Your task to perform on an android device: set the timer Image 0: 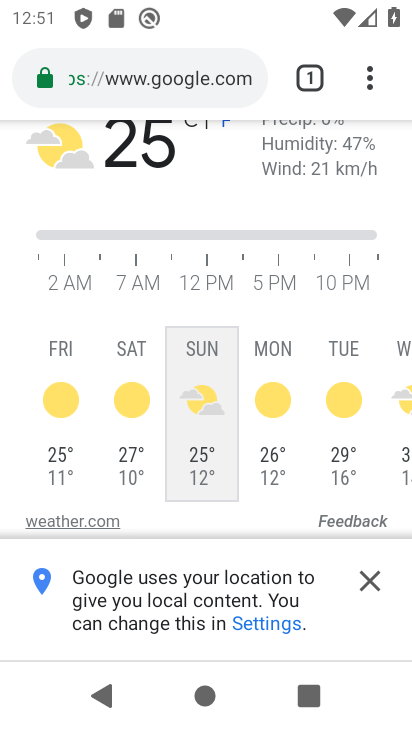
Step 0: press home button
Your task to perform on an android device: set the timer Image 1: 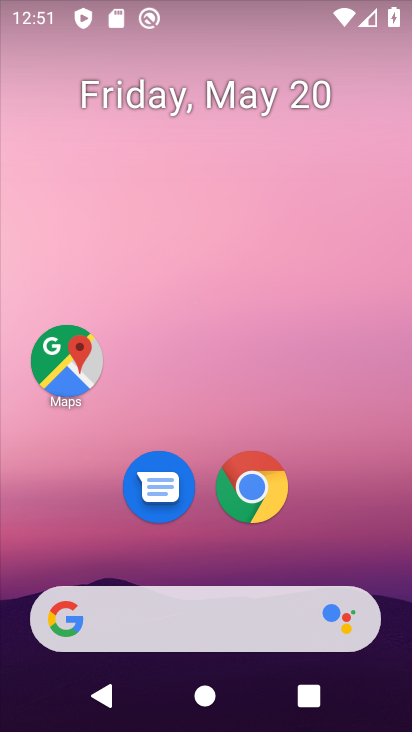
Step 1: drag from (338, 540) to (339, 150)
Your task to perform on an android device: set the timer Image 2: 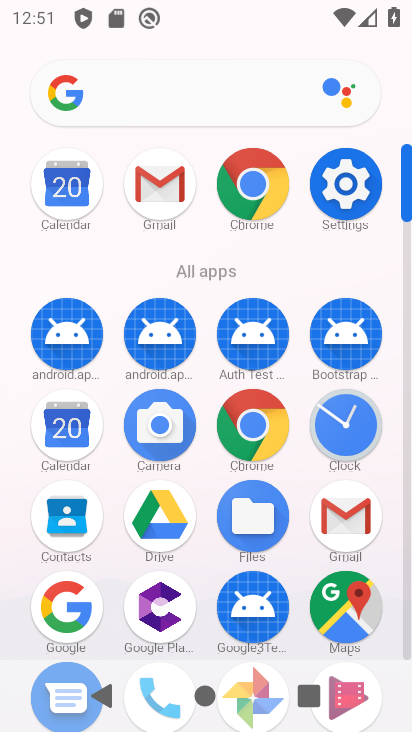
Step 2: click (348, 422)
Your task to perform on an android device: set the timer Image 3: 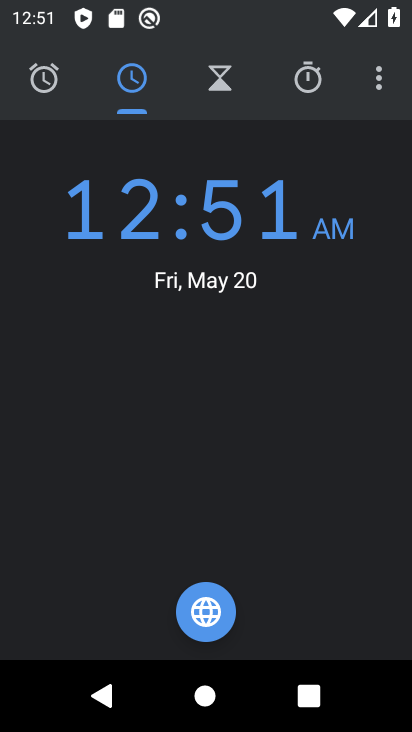
Step 3: click (222, 97)
Your task to perform on an android device: set the timer Image 4: 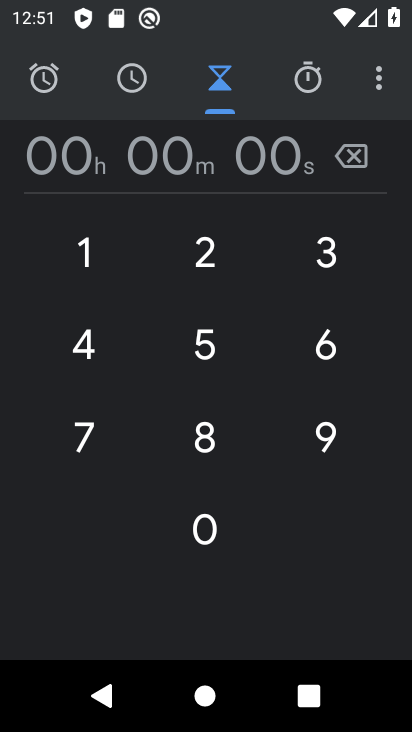
Step 4: click (207, 351)
Your task to perform on an android device: set the timer Image 5: 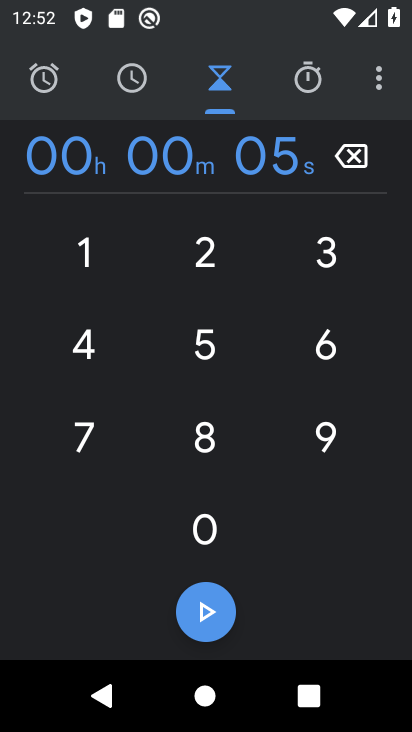
Step 5: task complete